Your task to perform on an android device: Open calendar and show me the third week of next month Image 0: 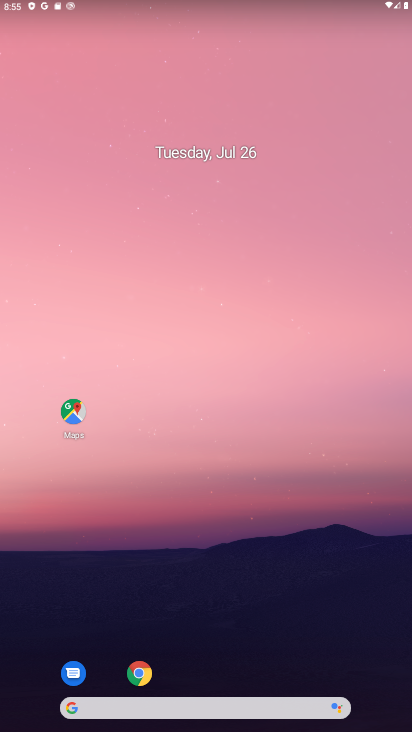
Step 0: drag from (237, 488) to (198, 7)
Your task to perform on an android device: Open calendar and show me the third week of next month Image 1: 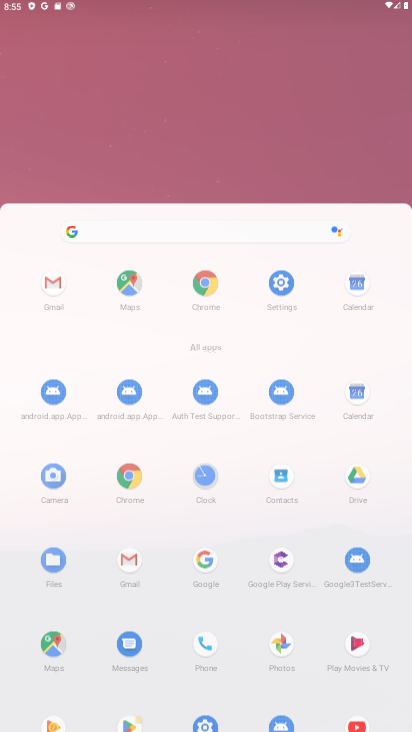
Step 1: drag from (230, 354) to (198, 75)
Your task to perform on an android device: Open calendar and show me the third week of next month Image 2: 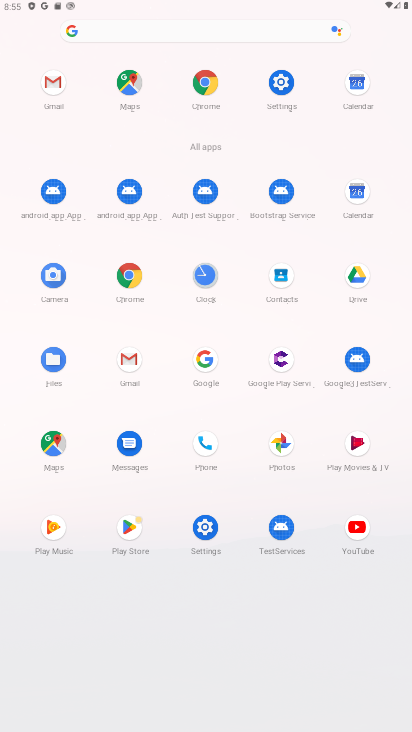
Step 2: drag from (203, 456) to (204, 112)
Your task to perform on an android device: Open calendar and show me the third week of next month Image 3: 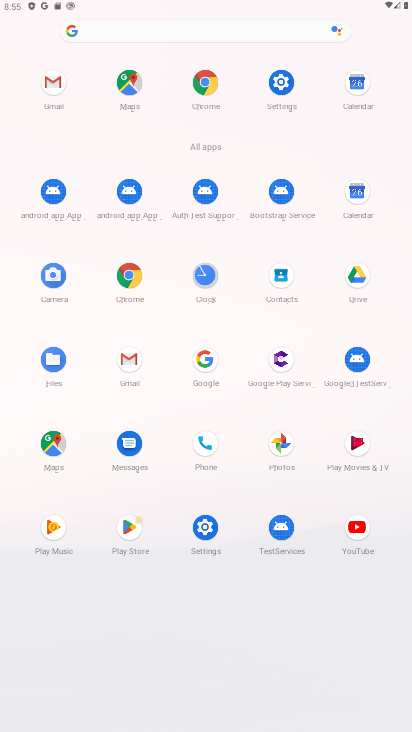
Step 3: click (357, 193)
Your task to perform on an android device: Open calendar and show me the third week of next month Image 4: 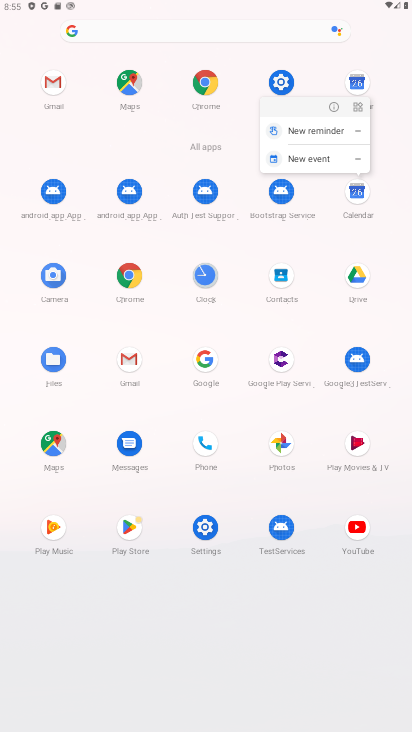
Step 4: click (360, 205)
Your task to perform on an android device: Open calendar and show me the third week of next month Image 5: 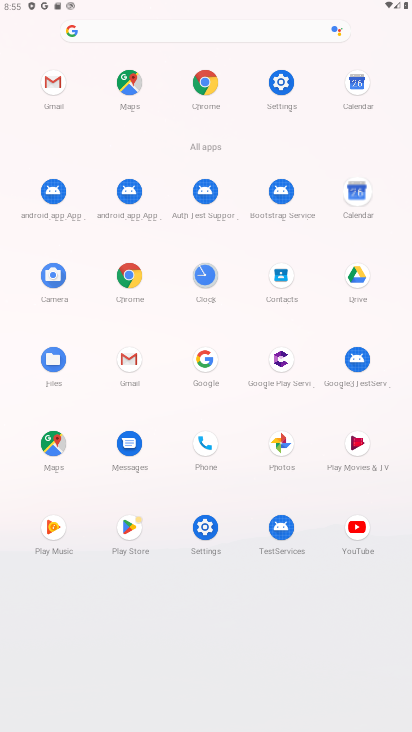
Step 5: click (360, 205)
Your task to perform on an android device: Open calendar and show me the third week of next month Image 6: 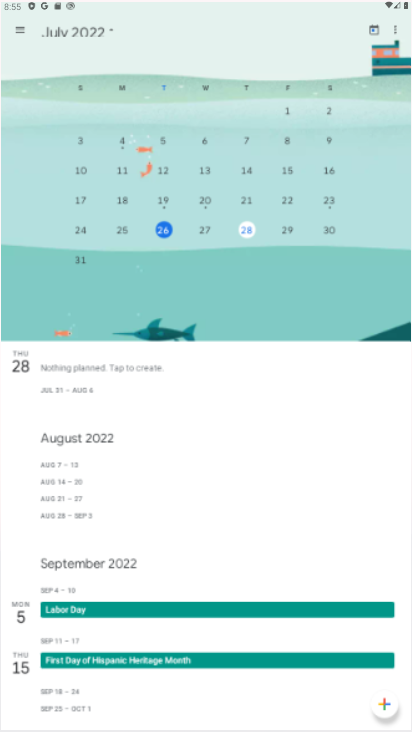
Step 6: click (361, 202)
Your task to perform on an android device: Open calendar and show me the third week of next month Image 7: 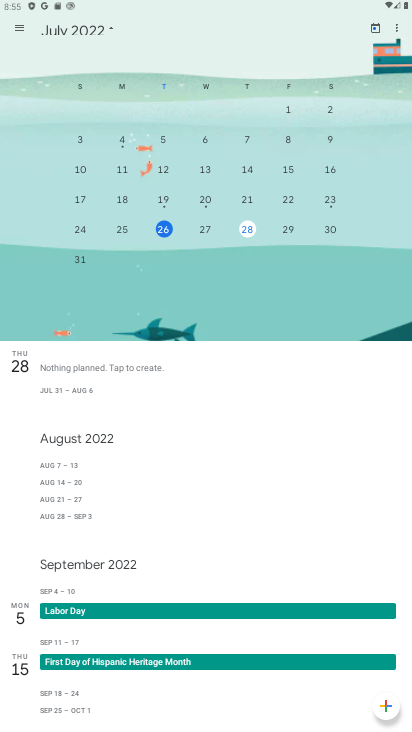
Step 7: drag from (311, 197) to (76, 228)
Your task to perform on an android device: Open calendar and show me the third week of next month Image 8: 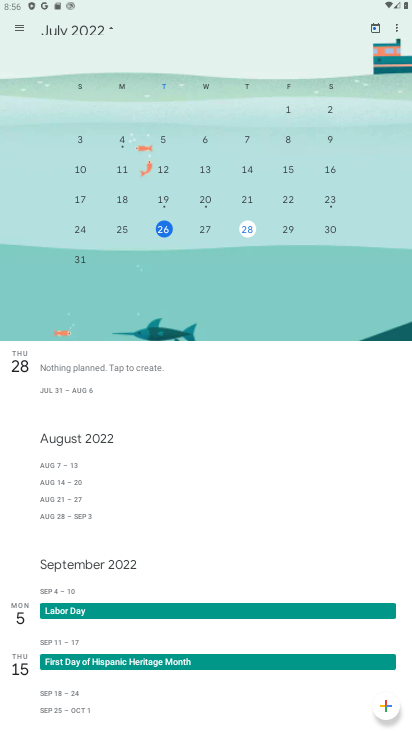
Step 8: drag from (329, 184) to (30, 219)
Your task to perform on an android device: Open calendar and show me the third week of next month Image 9: 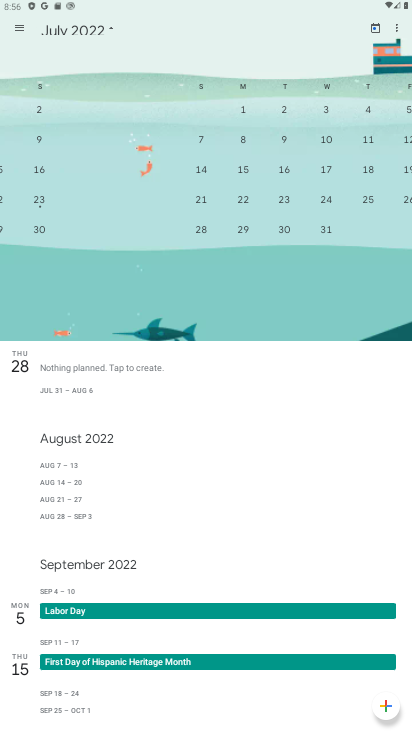
Step 9: drag from (180, 185) to (39, 212)
Your task to perform on an android device: Open calendar and show me the third week of next month Image 10: 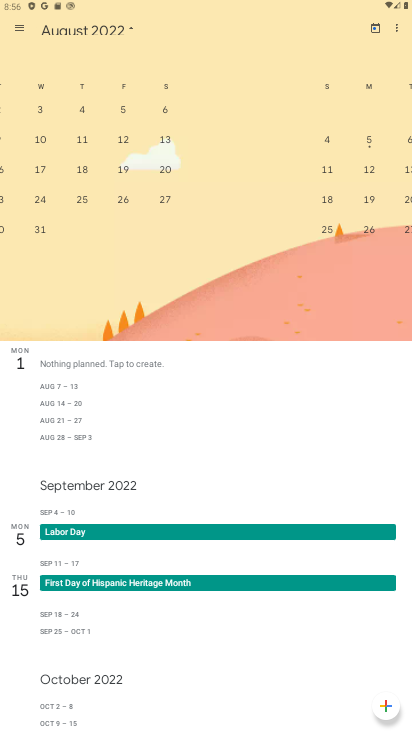
Step 10: drag from (349, 194) to (67, 211)
Your task to perform on an android device: Open calendar and show me the third week of next month Image 11: 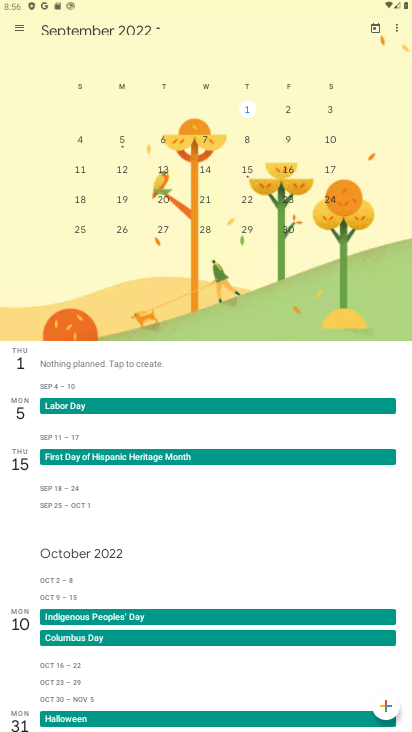
Step 11: drag from (82, 161) to (390, 196)
Your task to perform on an android device: Open calendar and show me the third week of next month Image 12: 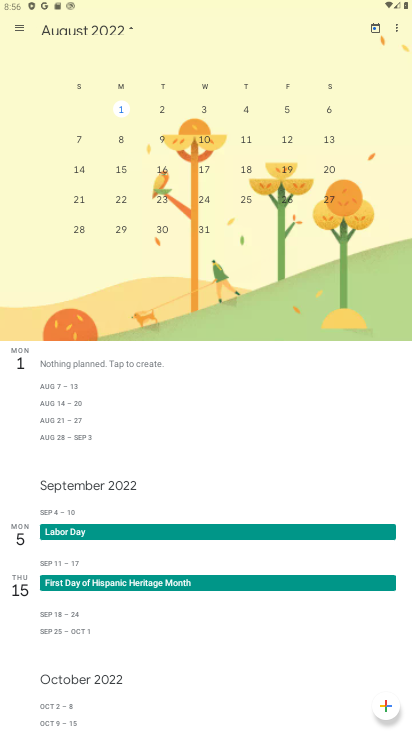
Step 12: click (399, 197)
Your task to perform on an android device: Open calendar and show me the third week of next month Image 13: 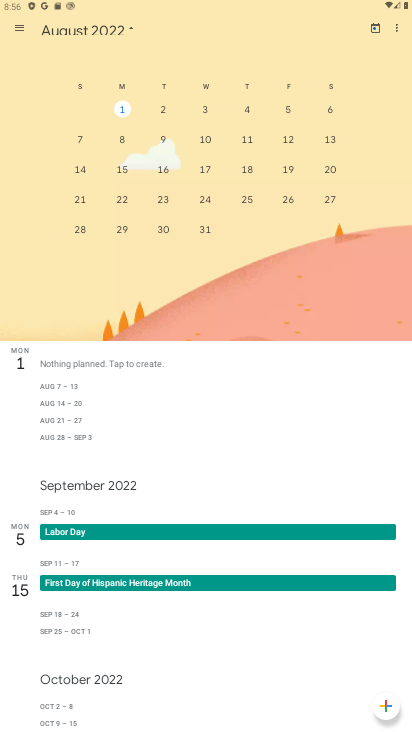
Step 13: click (161, 173)
Your task to perform on an android device: Open calendar and show me the third week of next month Image 14: 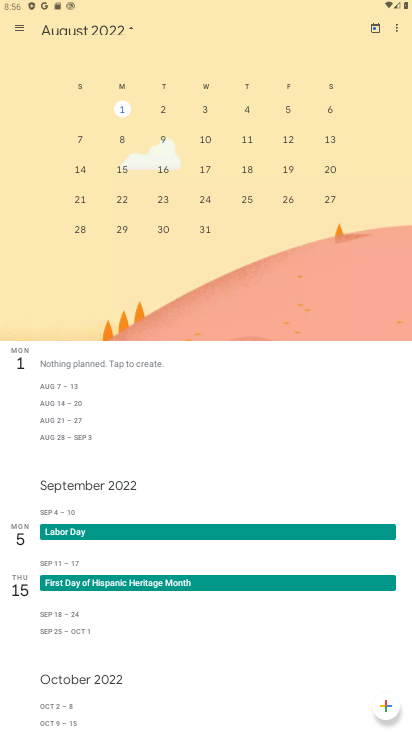
Step 14: click (161, 173)
Your task to perform on an android device: Open calendar and show me the third week of next month Image 15: 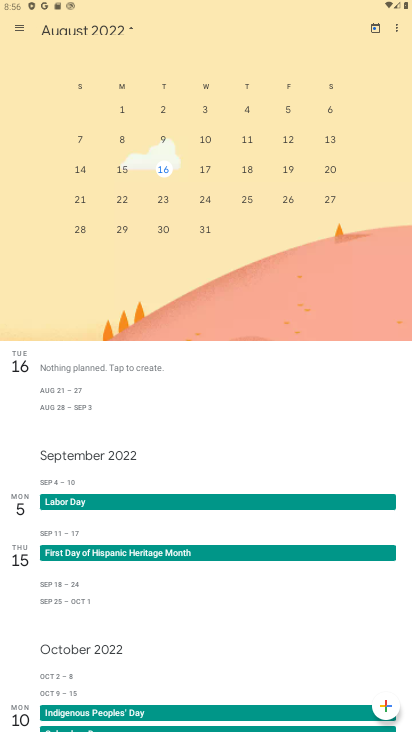
Step 15: click (161, 173)
Your task to perform on an android device: Open calendar and show me the third week of next month Image 16: 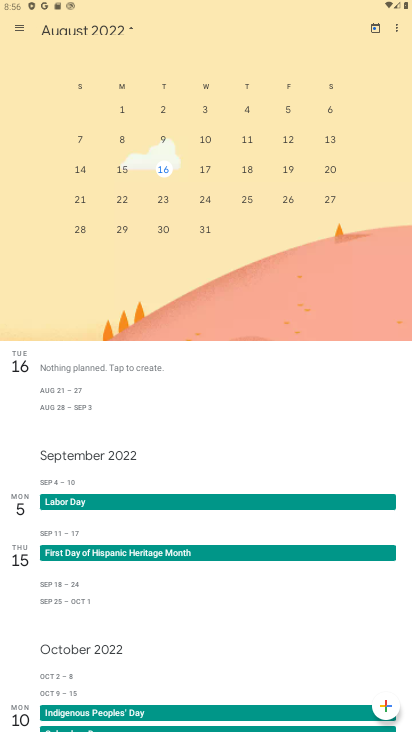
Step 16: task complete